Your task to perform on an android device: What's on my calendar today? Image 0: 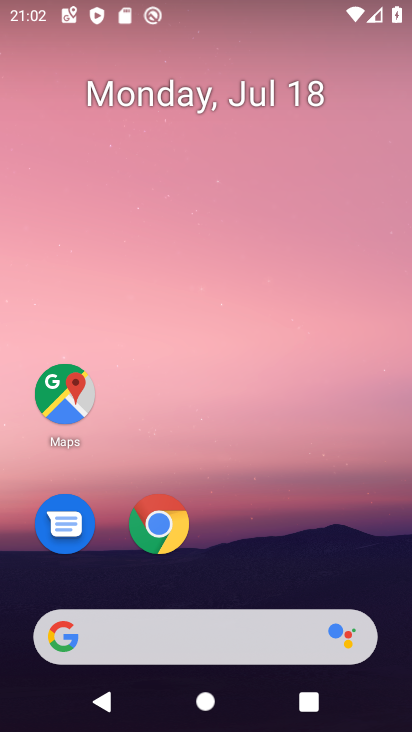
Step 0: drag from (238, 549) to (278, 72)
Your task to perform on an android device: What's on my calendar today? Image 1: 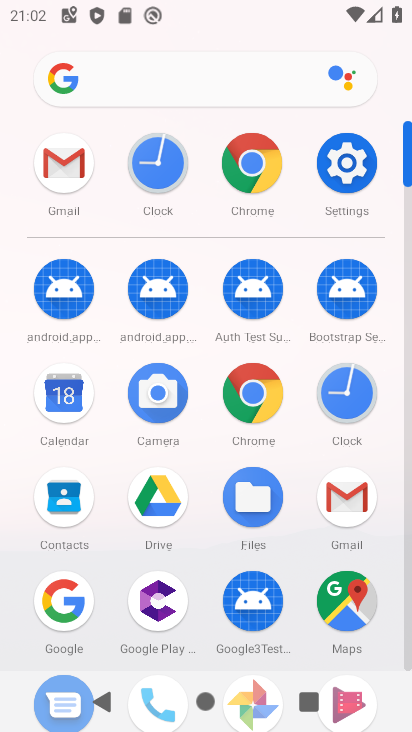
Step 1: click (62, 387)
Your task to perform on an android device: What's on my calendar today? Image 2: 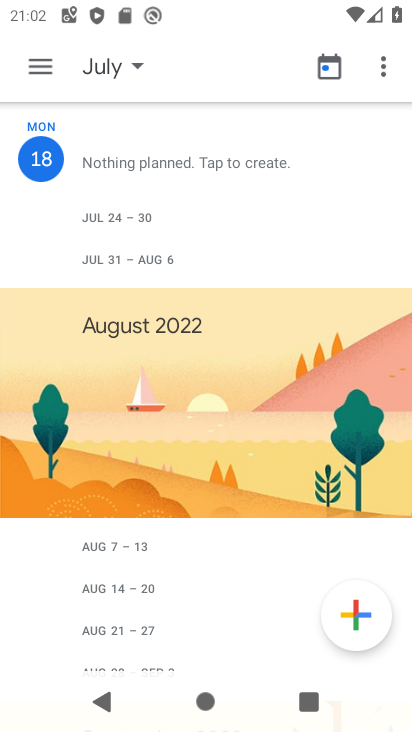
Step 2: task complete